Your task to perform on an android device: turn off location Image 0: 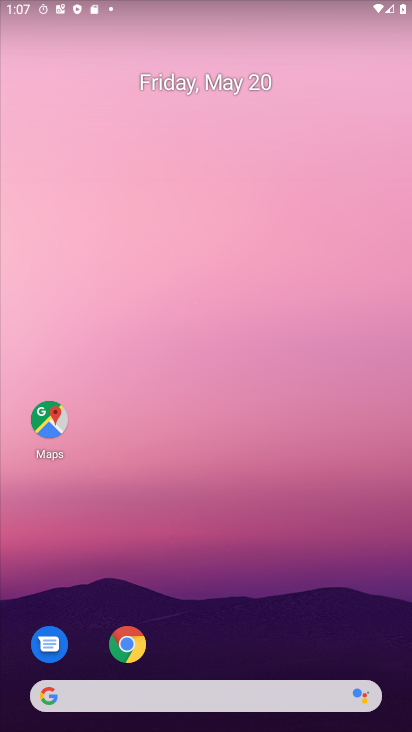
Step 0: drag from (308, 484) to (232, 69)
Your task to perform on an android device: turn off location Image 1: 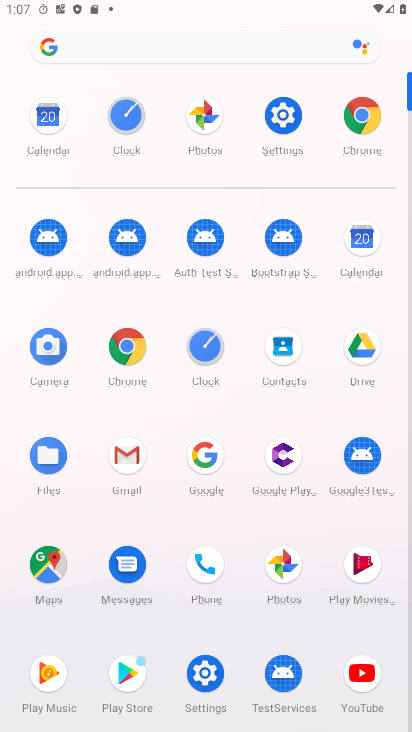
Step 1: click (283, 111)
Your task to perform on an android device: turn off location Image 2: 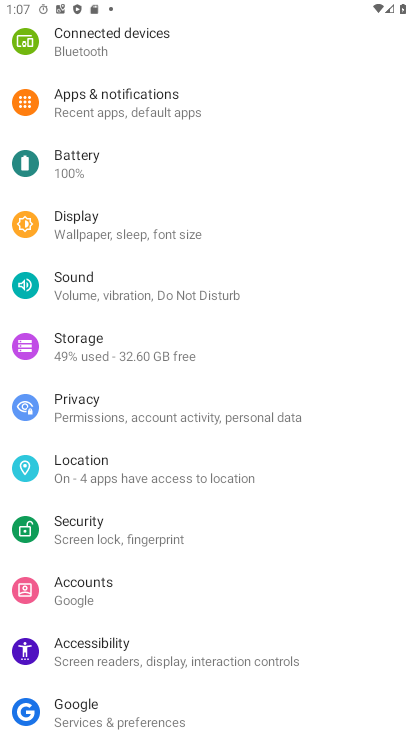
Step 2: click (63, 459)
Your task to perform on an android device: turn off location Image 3: 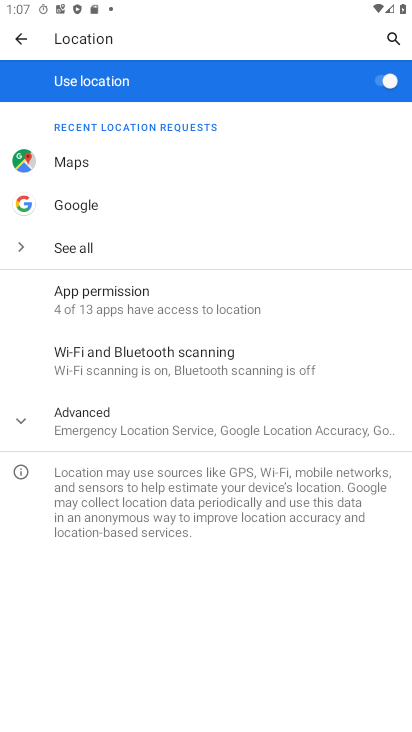
Step 3: click (390, 81)
Your task to perform on an android device: turn off location Image 4: 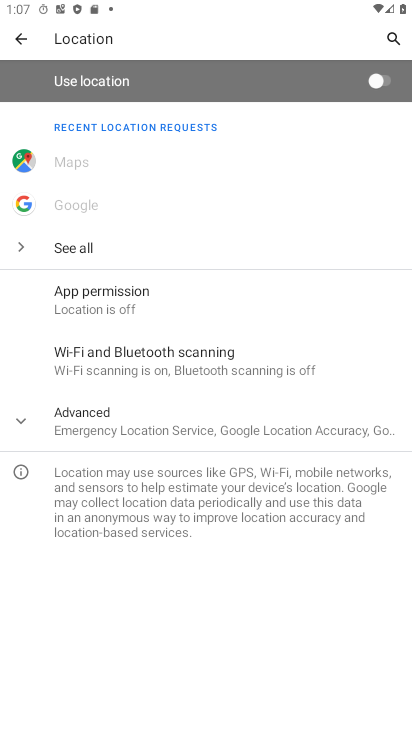
Step 4: task complete